Your task to perform on an android device: turn off wifi Image 0: 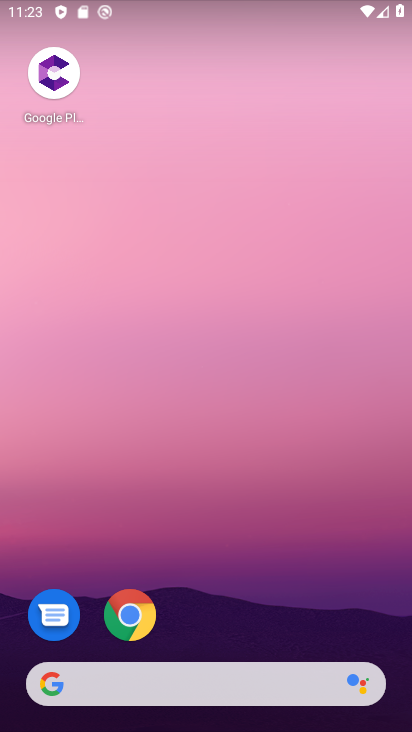
Step 0: drag from (270, 612) to (186, 0)
Your task to perform on an android device: turn off wifi Image 1: 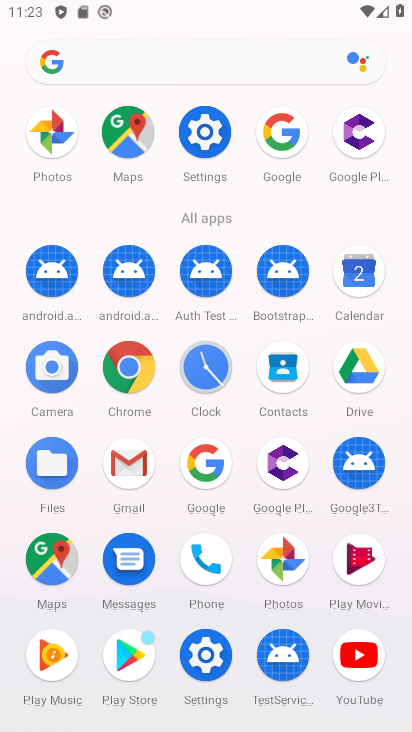
Step 1: click (200, 127)
Your task to perform on an android device: turn off wifi Image 2: 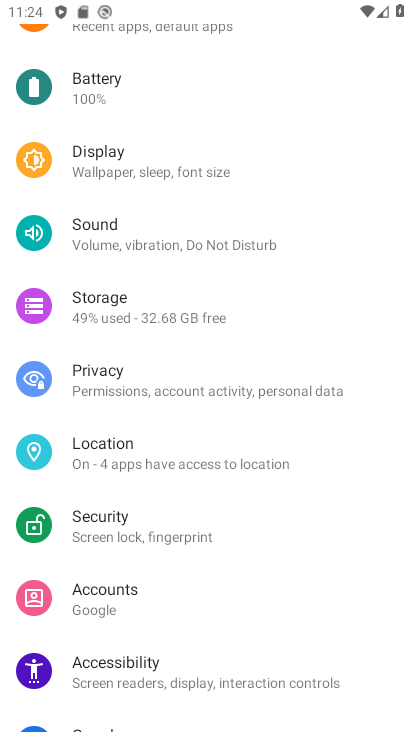
Step 2: drag from (237, 195) to (241, 659)
Your task to perform on an android device: turn off wifi Image 3: 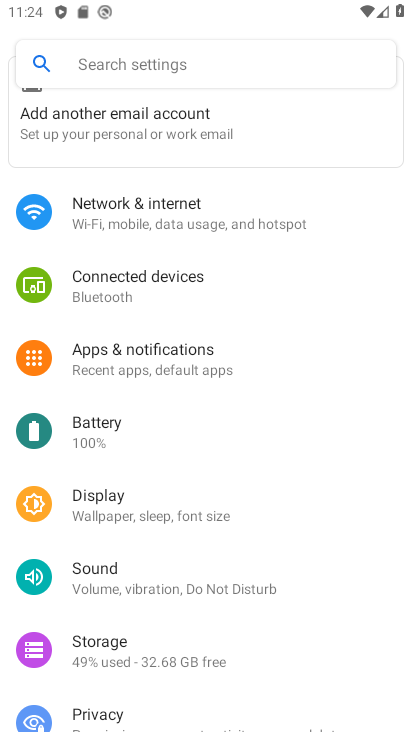
Step 3: click (234, 210)
Your task to perform on an android device: turn off wifi Image 4: 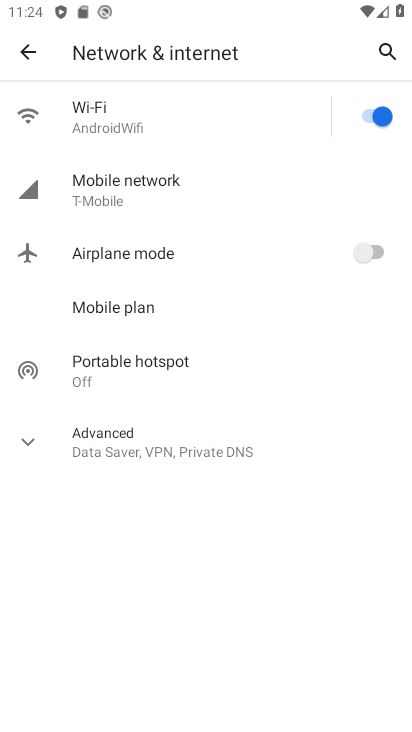
Step 4: click (379, 112)
Your task to perform on an android device: turn off wifi Image 5: 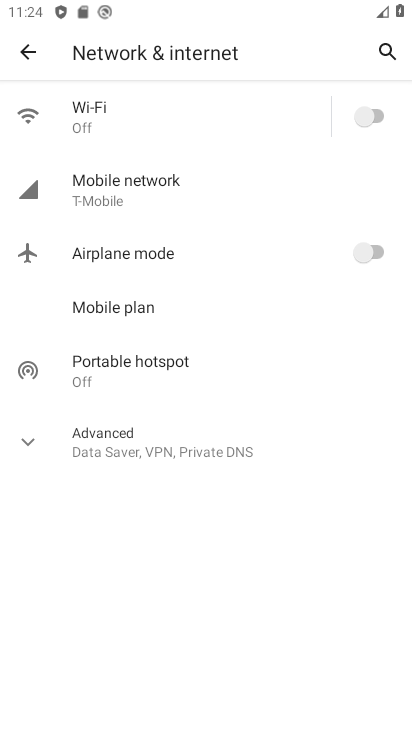
Step 5: task complete